Your task to perform on an android device: Open settings Image 0: 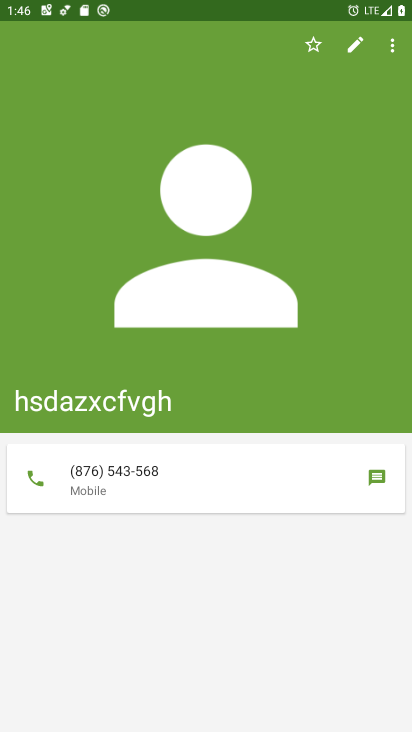
Step 0: press home button
Your task to perform on an android device: Open settings Image 1: 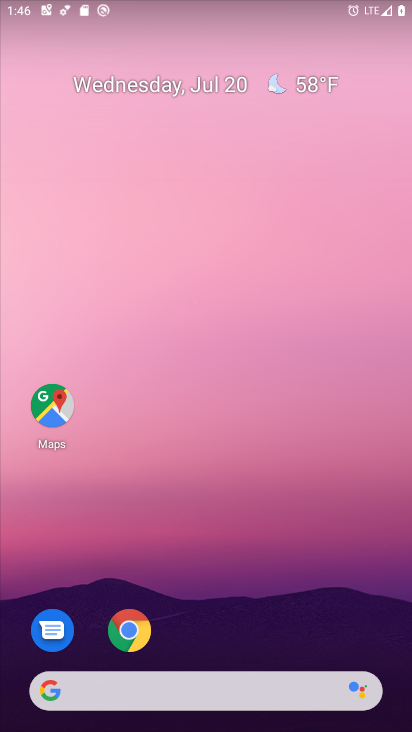
Step 1: drag from (245, 616) to (297, 196)
Your task to perform on an android device: Open settings Image 2: 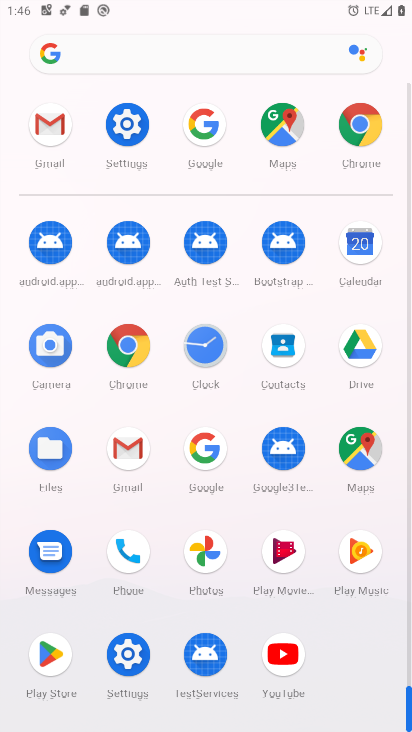
Step 2: click (113, 141)
Your task to perform on an android device: Open settings Image 3: 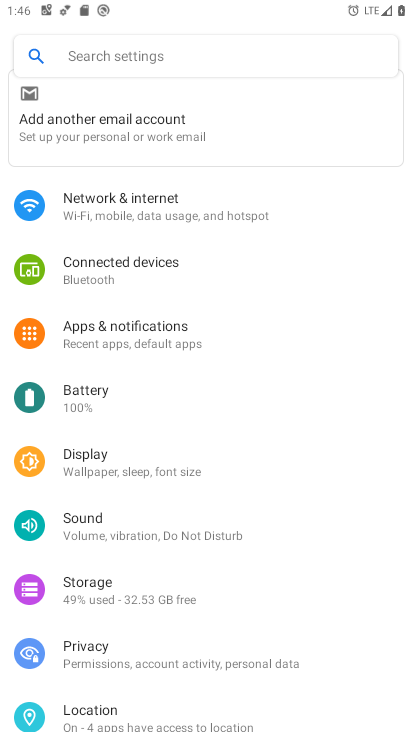
Step 3: task complete